Your task to perform on an android device: What's the weather going to be this weekend? Image 0: 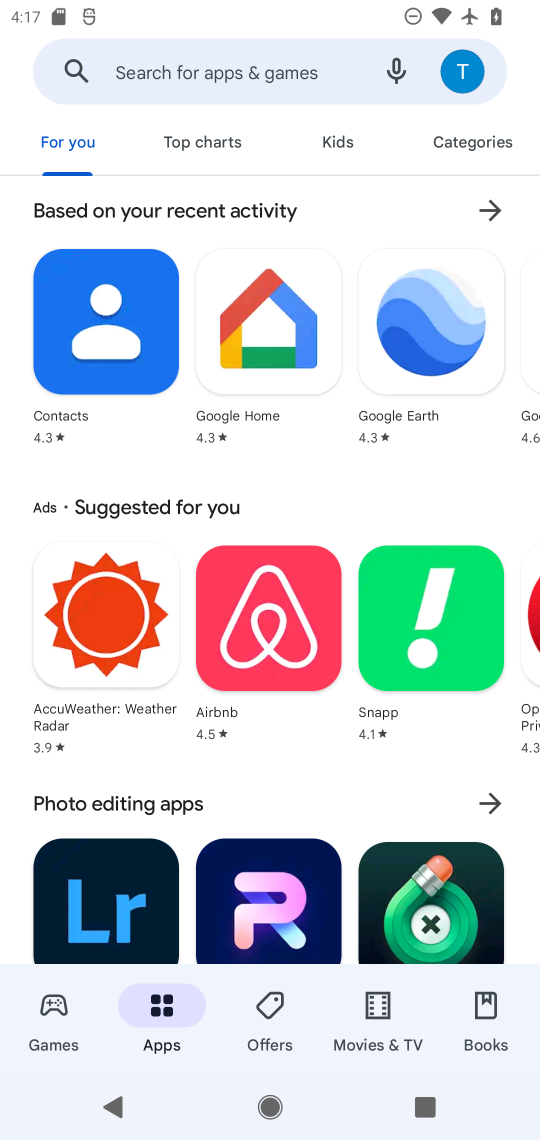
Step 0: press home button
Your task to perform on an android device: What's the weather going to be this weekend? Image 1: 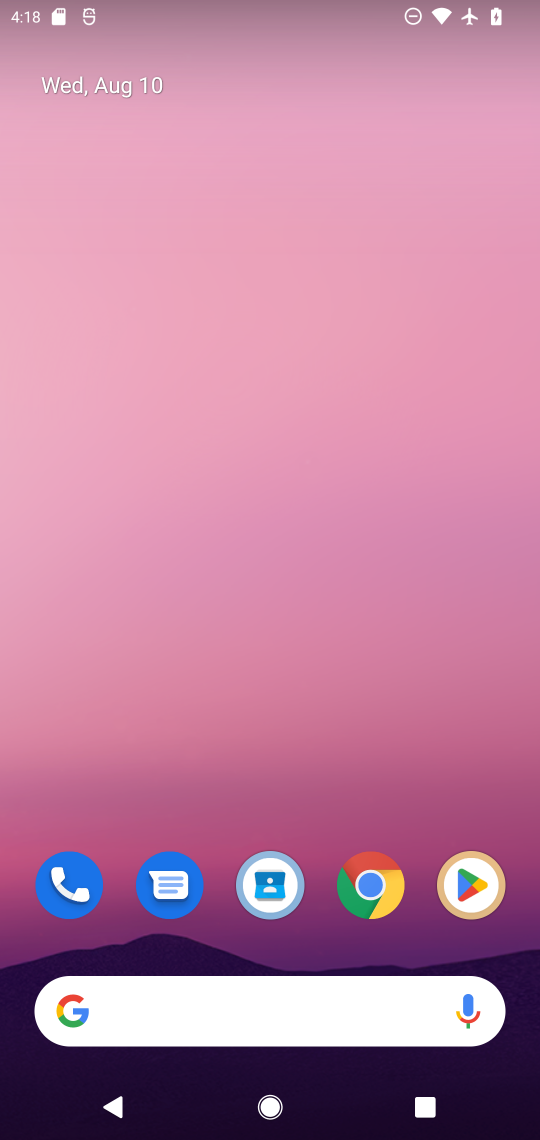
Step 1: click (230, 994)
Your task to perform on an android device: What's the weather going to be this weekend? Image 2: 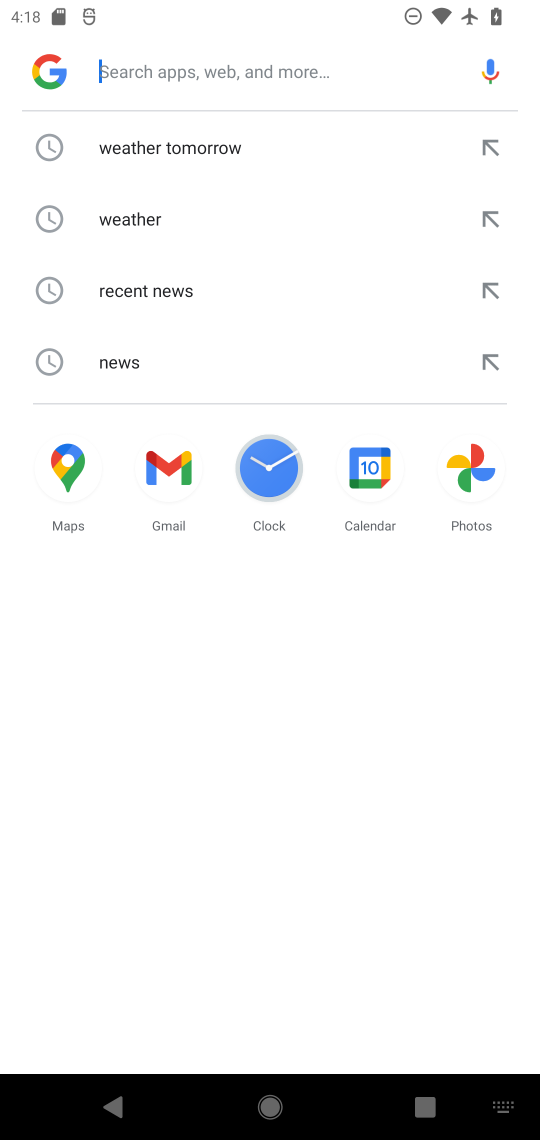
Step 2: click (139, 212)
Your task to perform on an android device: What's the weather going to be this weekend? Image 3: 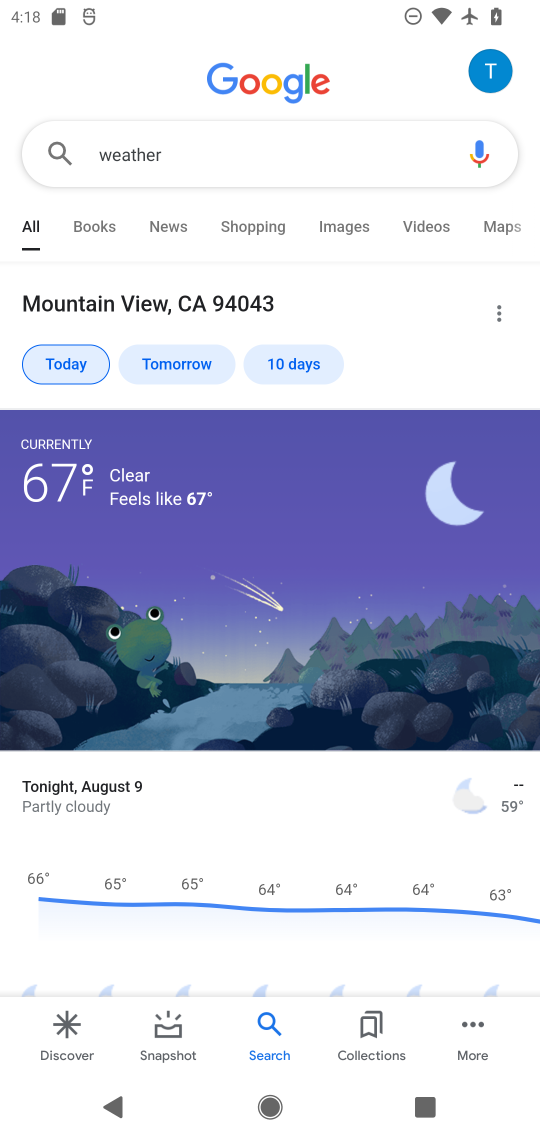
Step 3: click (299, 363)
Your task to perform on an android device: What's the weather going to be this weekend? Image 4: 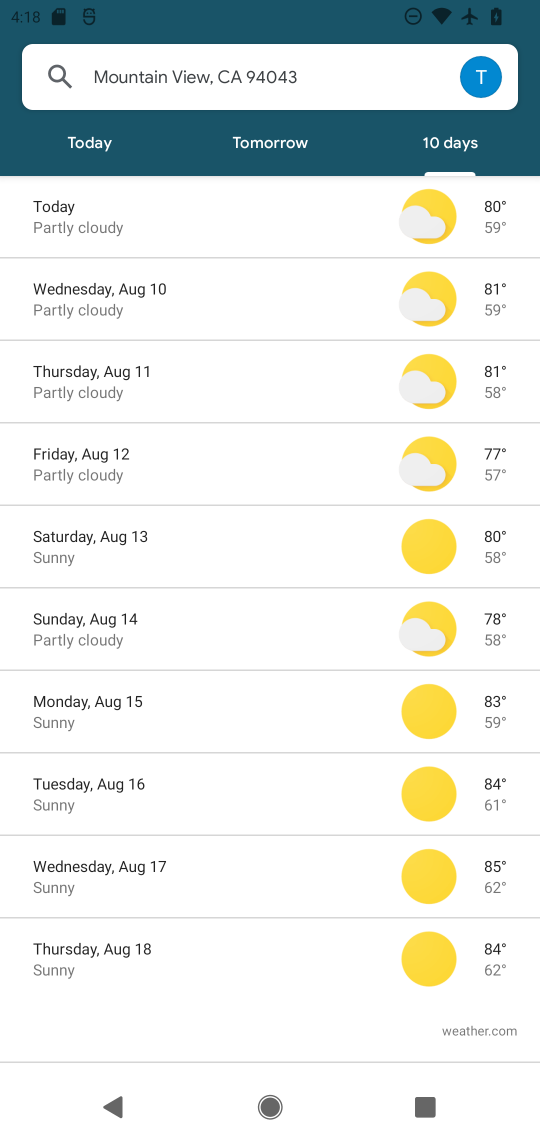
Step 4: task complete